Your task to perform on an android device: toggle location history Image 0: 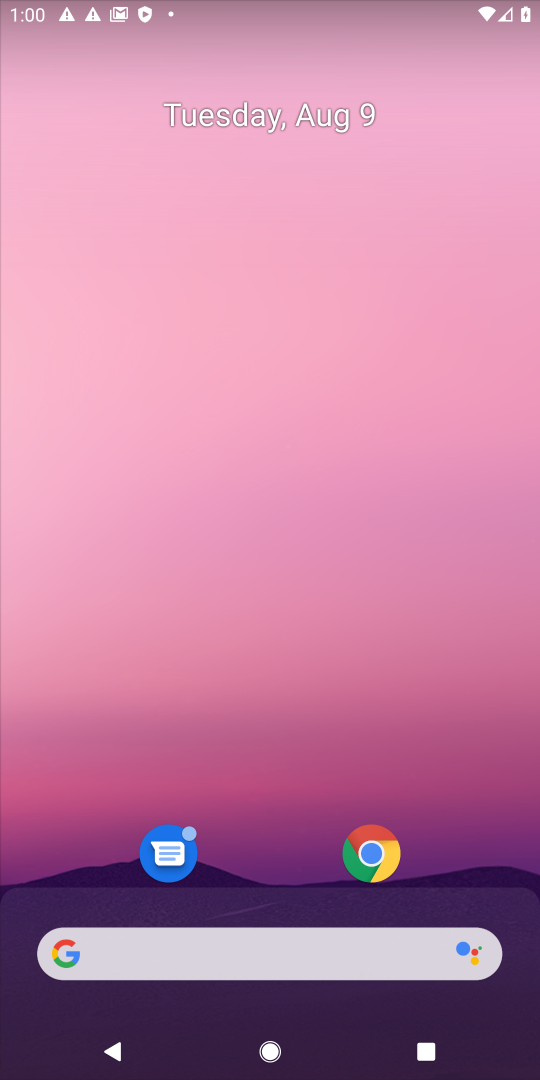
Step 0: drag from (282, 913) to (331, 226)
Your task to perform on an android device: toggle location history Image 1: 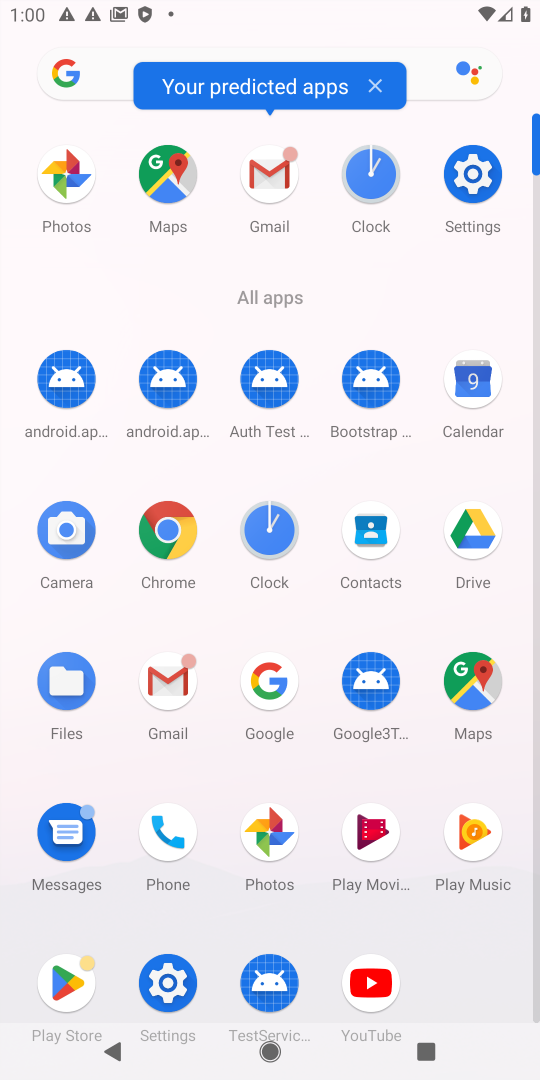
Step 1: click (168, 990)
Your task to perform on an android device: toggle location history Image 2: 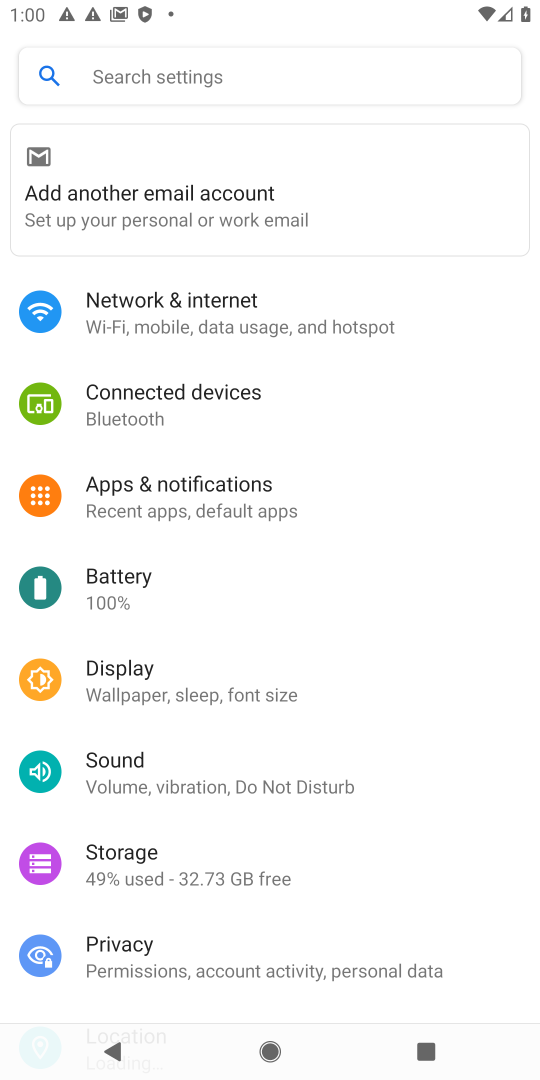
Step 2: drag from (183, 898) to (212, 348)
Your task to perform on an android device: toggle location history Image 3: 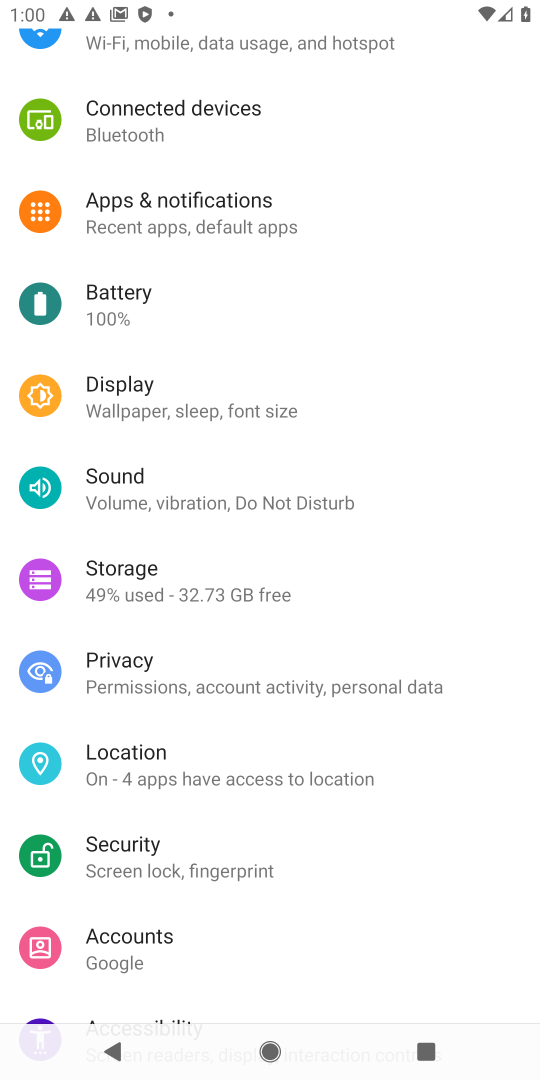
Step 3: click (168, 776)
Your task to perform on an android device: toggle location history Image 4: 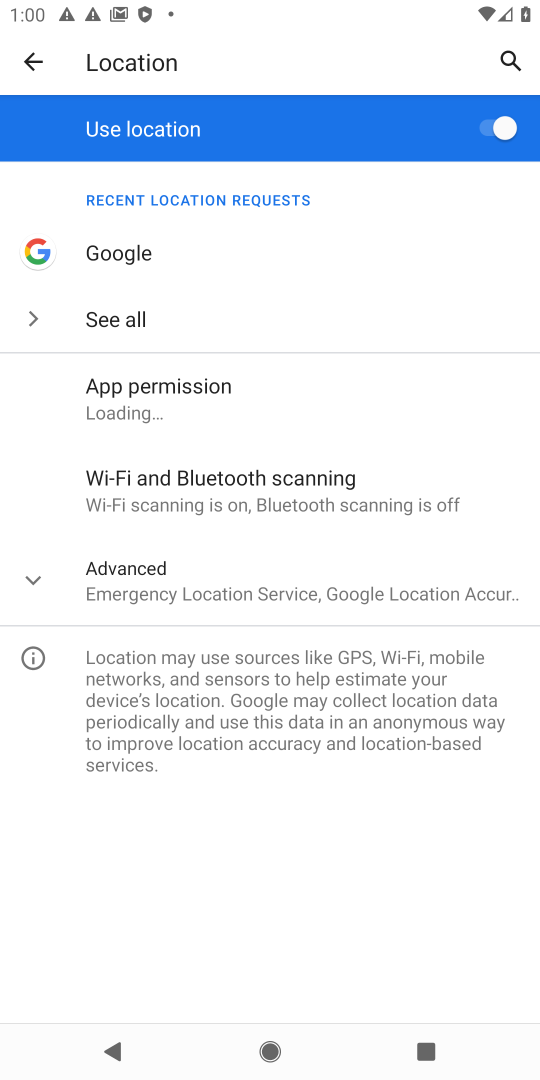
Step 4: click (253, 594)
Your task to perform on an android device: toggle location history Image 5: 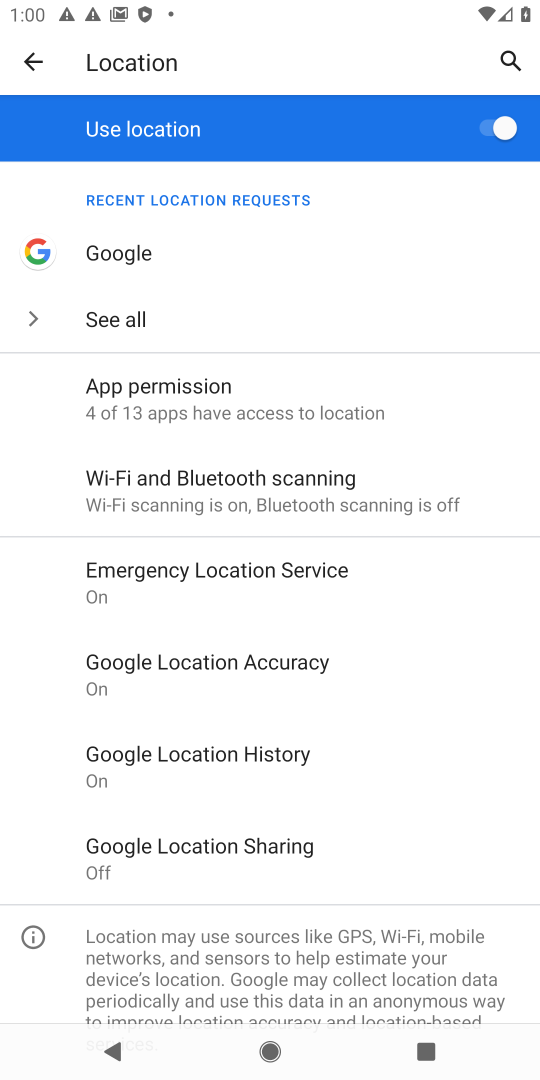
Step 5: click (244, 736)
Your task to perform on an android device: toggle location history Image 6: 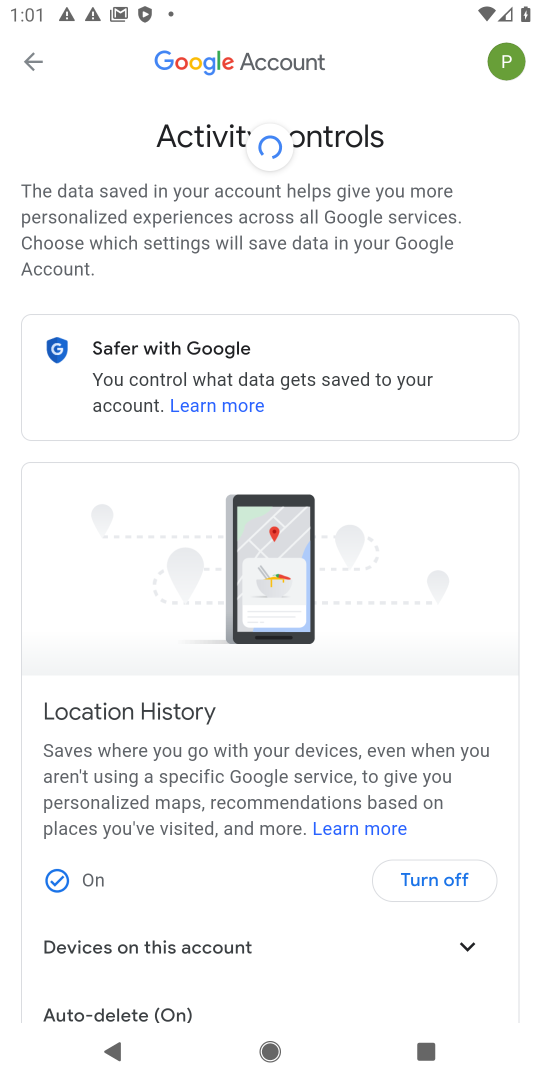
Step 6: click (449, 887)
Your task to perform on an android device: toggle location history Image 7: 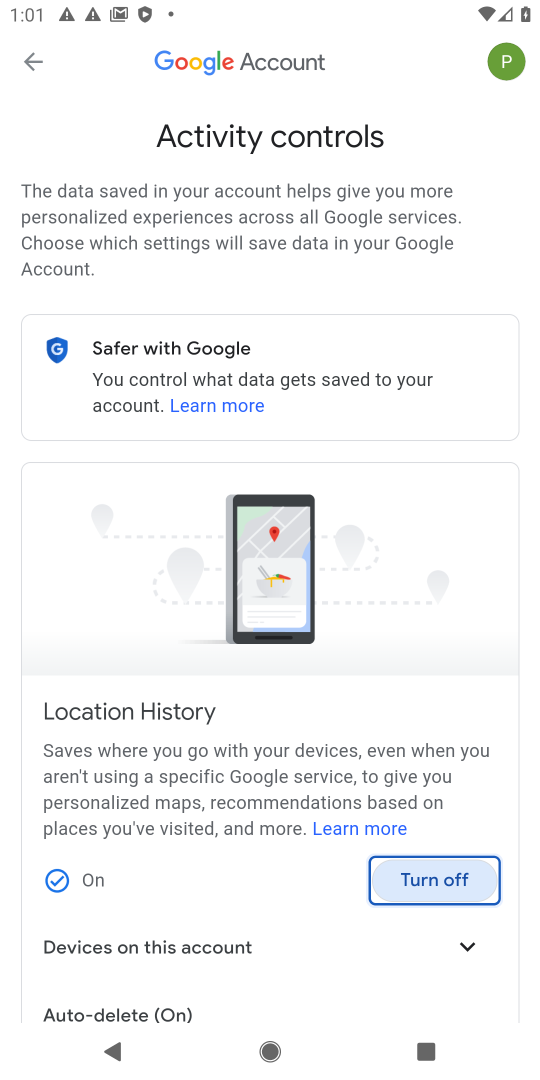
Step 7: click (447, 875)
Your task to perform on an android device: toggle location history Image 8: 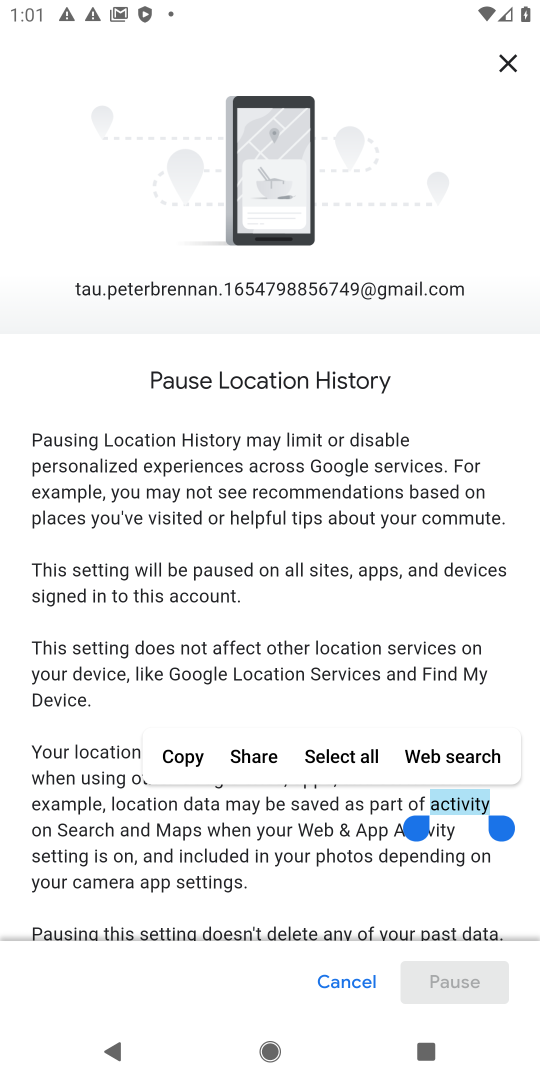
Step 8: click (291, 862)
Your task to perform on an android device: toggle location history Image 9: 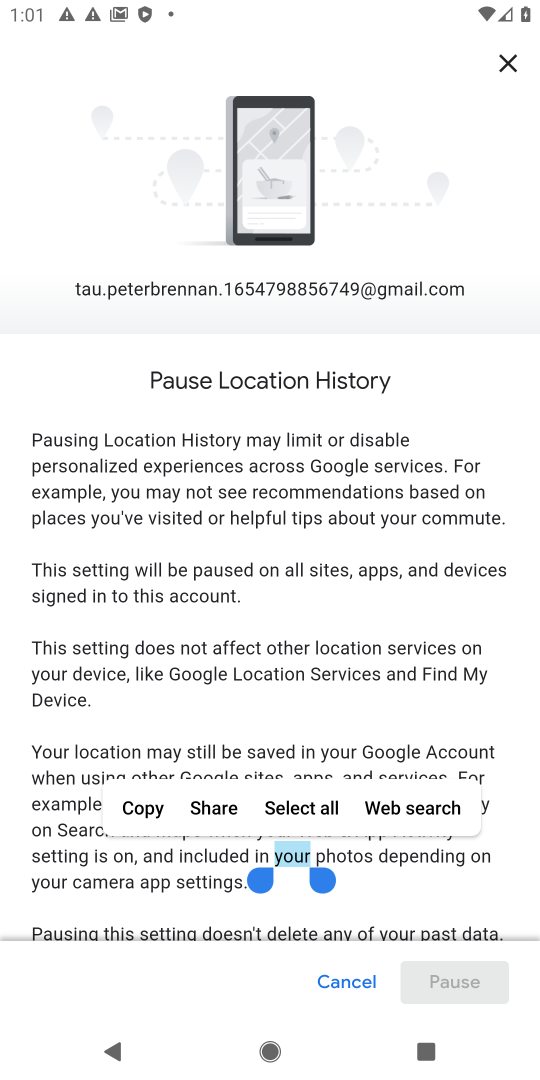
Step 9: click (291, 847)
Your task to perform on an android device: toggle location history Image 10: 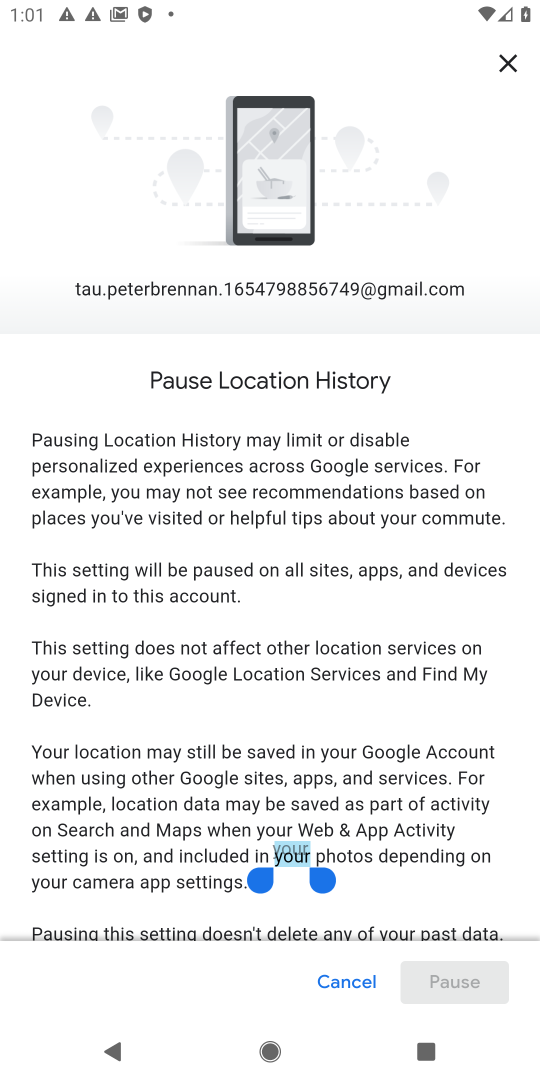
Step 10: click (122, 853)
Your task to perform on an android device: toggle location history Image 11: 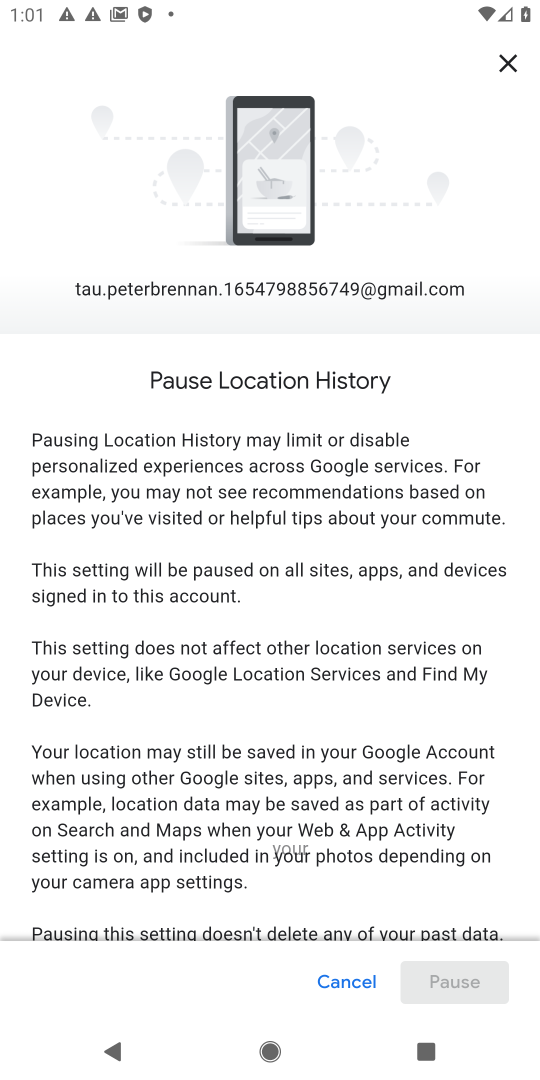
Step 11: drag from (124, 836) to (166, 146)
Your task to perform on an android device: toggle location history Image 12: 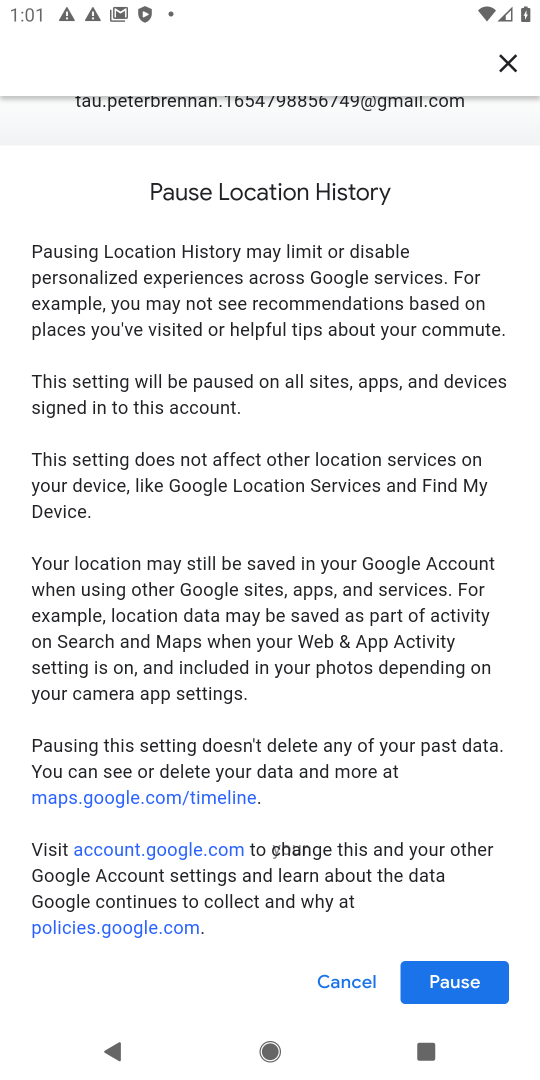
Step 12: drag from (315, 703) to (337, 463)
Your task to perform on an android device: toggle location history Image 13: 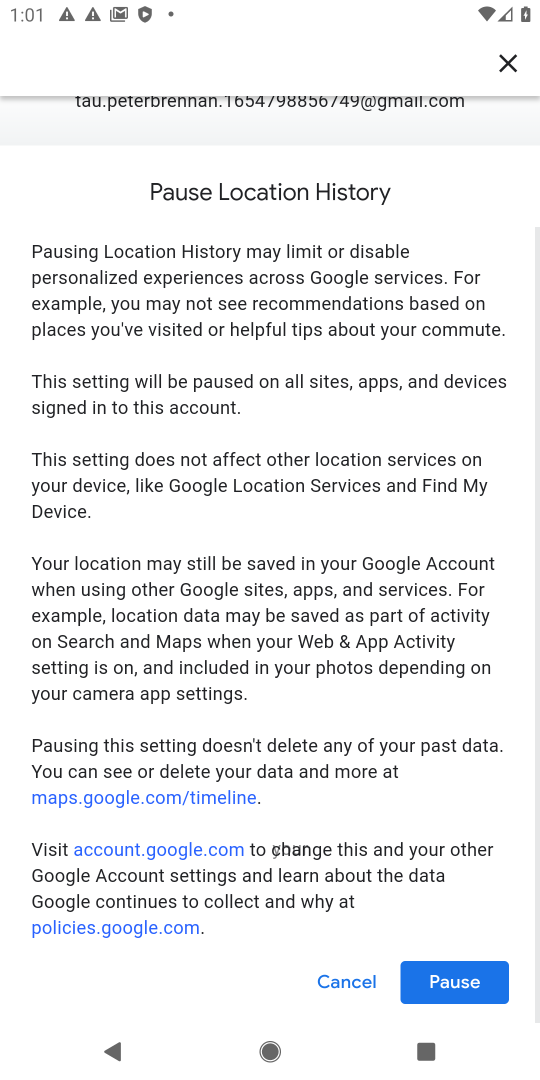
Step 13: click (493, 977)
Your task to perform on an android device: toggle location history Image 14: 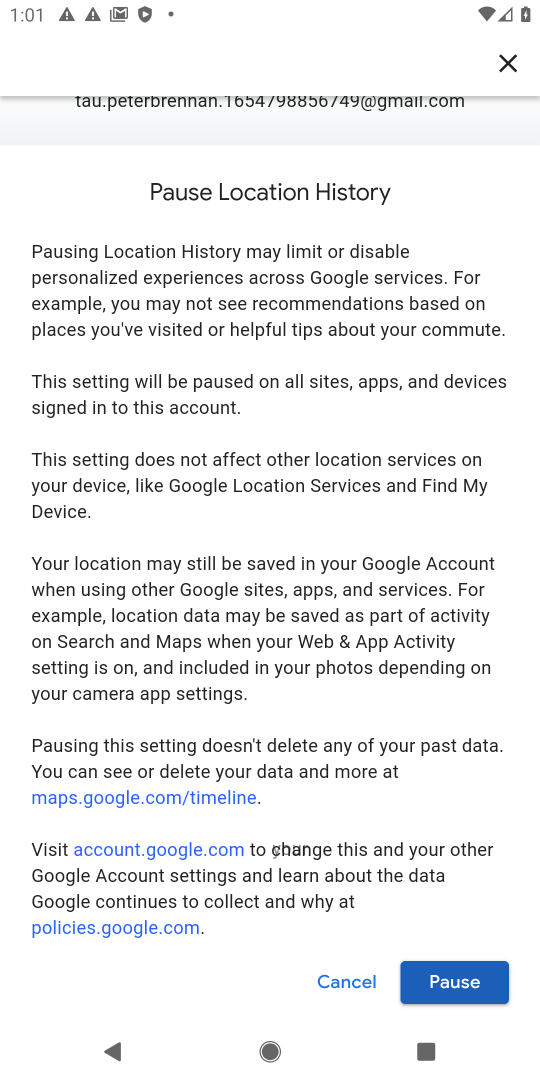
Step 14: click (479, 972)
Your task to perform on an android device: toggle location history Image 15: 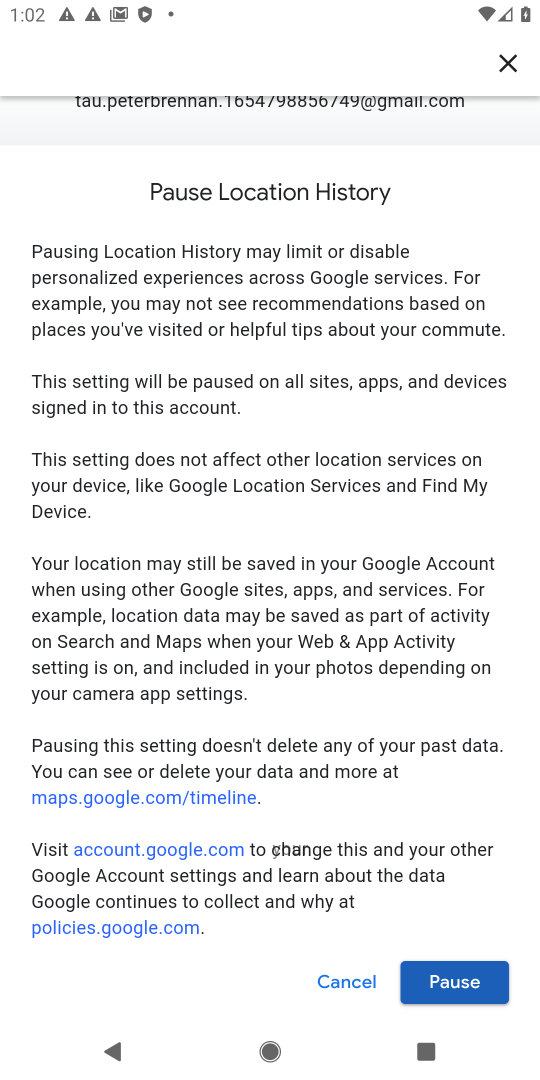
Step 15: click (467, 968)
Your task to perform on an android device: toggle location history Image 16: 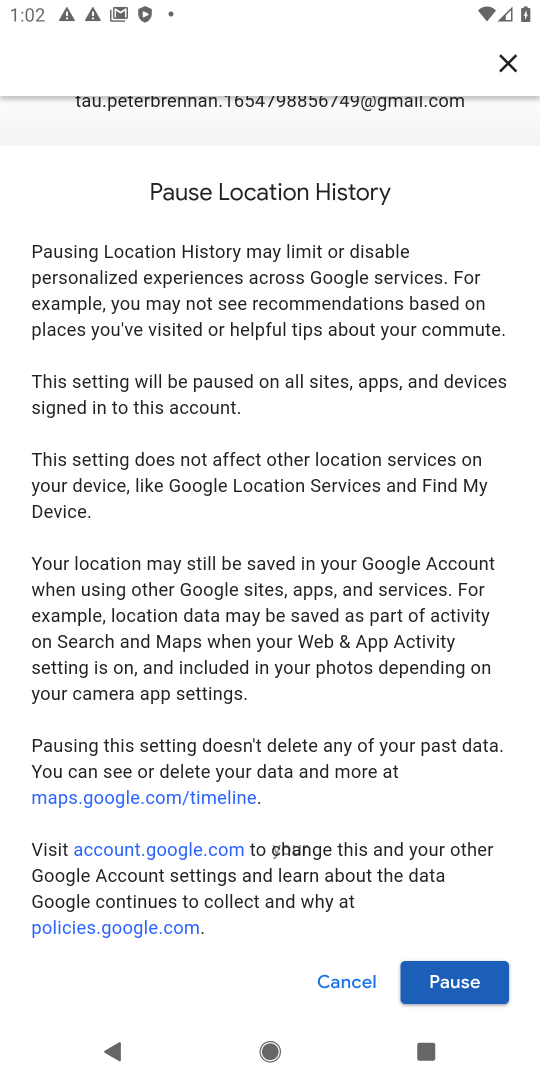
Step 16: drag from (338, 774) to (402, 190)
Your task to perform on an android device: toggle location history Image 17: 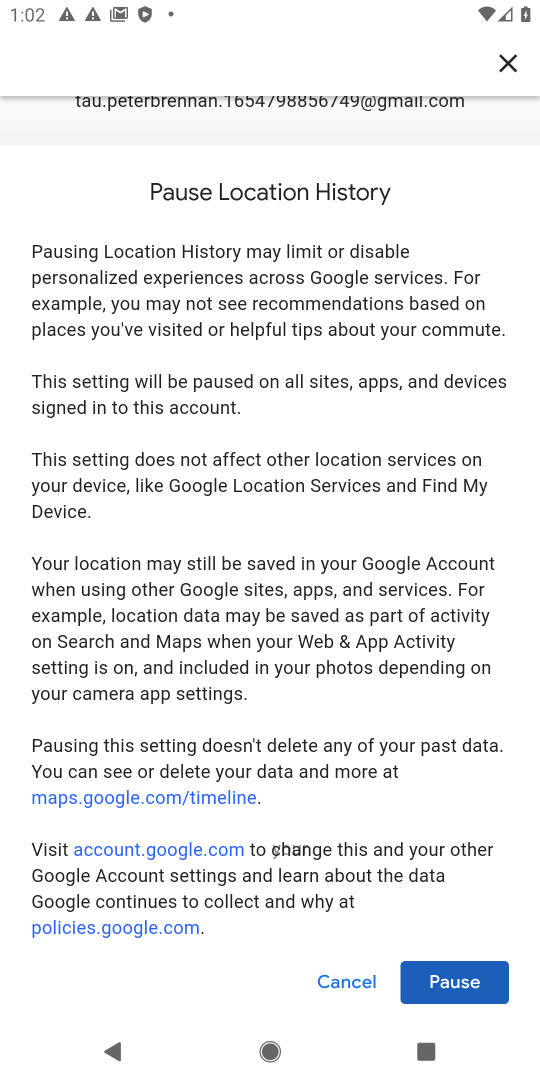
Step 17: click (466, 968)
Your task to perform on an android device: toggle location history Image 18: 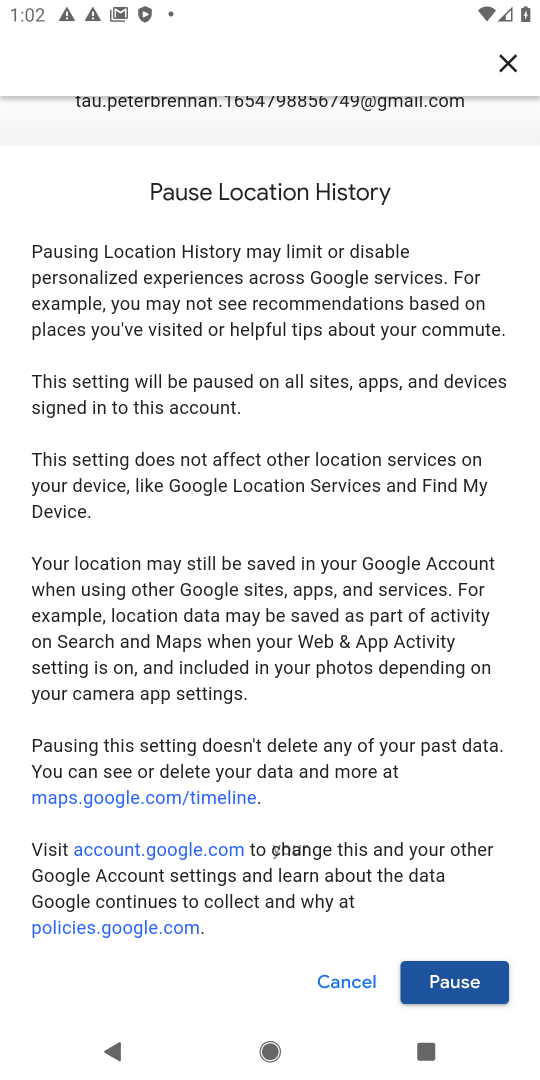
Step 18: task complete